Your task to perform on an android device: What's the weather? Image 0: 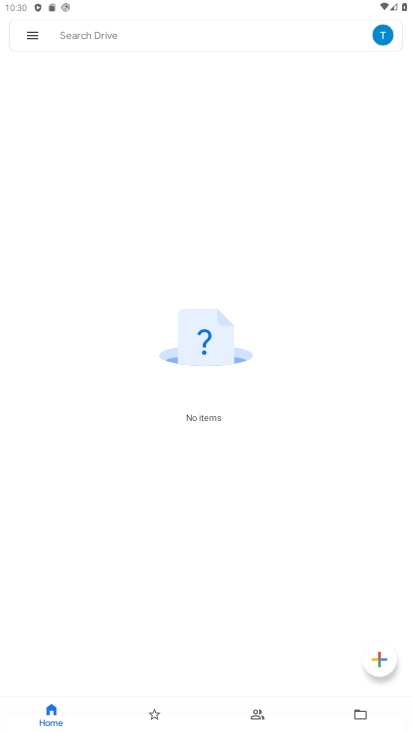
Step 0: press home button
Your task to perform on an android device: What's the weather? Image 1: 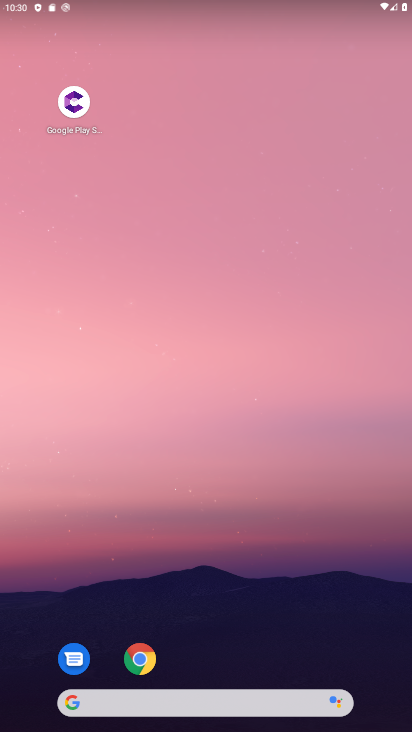
Step 1: click (156, 703)
Your task to perform on an android device: What's the weather? Image 2: 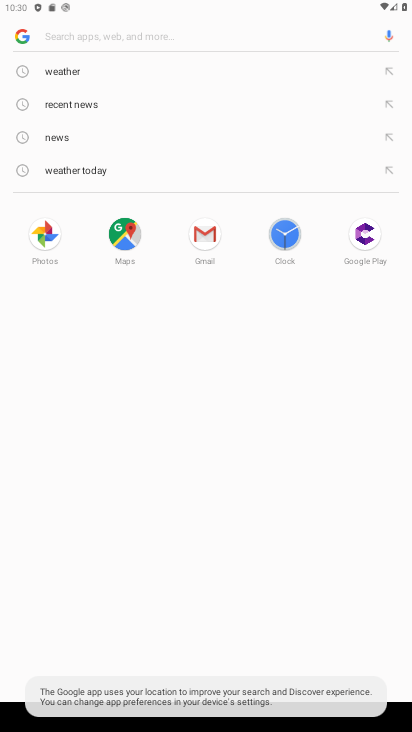
Step 2: click (48, 71)
Your task to perform on an android device: What's the weather? Image 3: 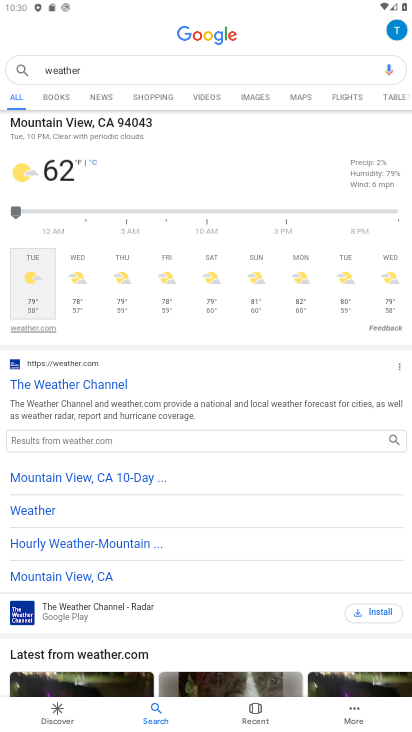
Step 3: task complete